Your task to perform on an android device: clear history in the chrome app Image 0: 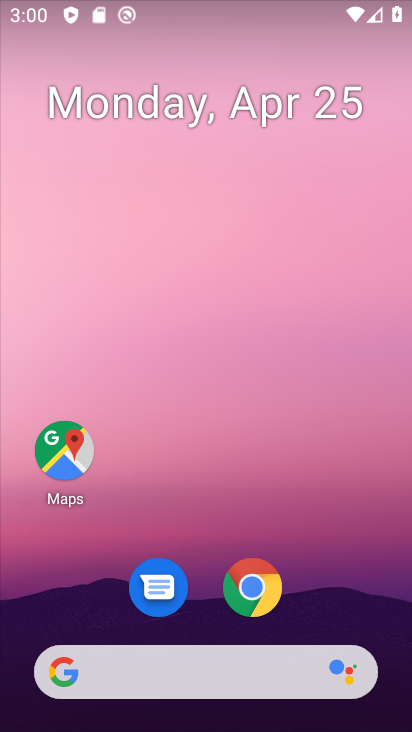
Step 0: click (253, 592)
Your task to perform on an android device: clear history in the chrome app Image 1: 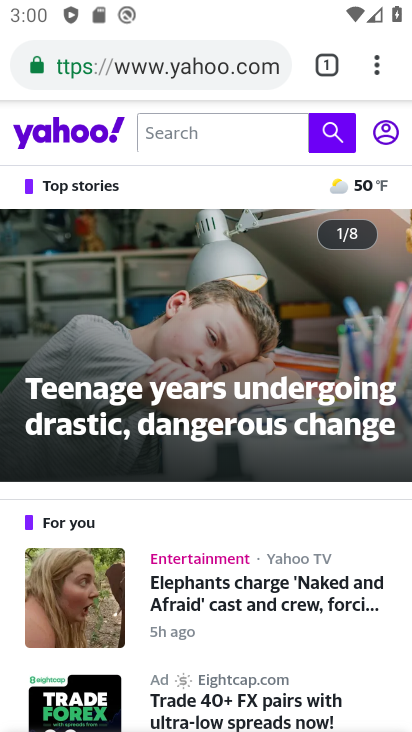
Step 1: click (385, 67)
Your task to perform on an android device: clear history in the chrome app Image 2: 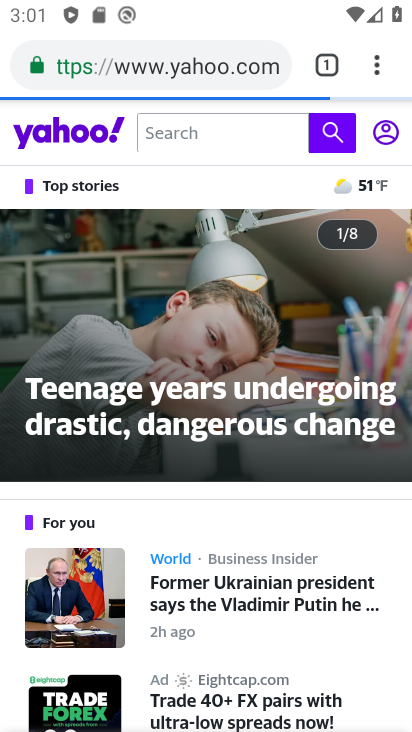
Step 2: click (375, 64)
Your task to perform on an android device: clear history in the chrome app Image 3: 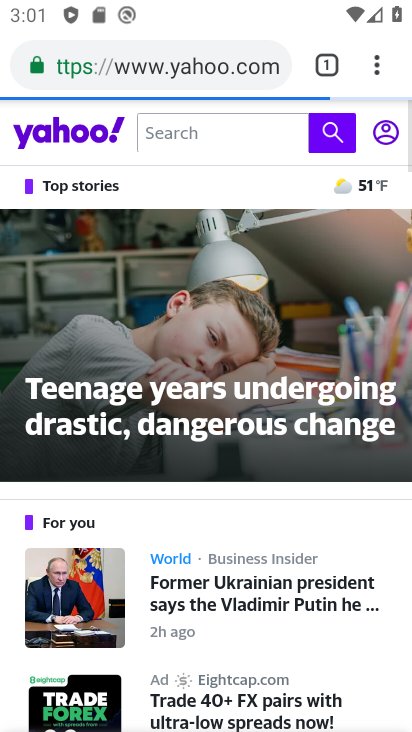
Step 3: click (381, 57)
Your task to perform on an android device: clear history in the chrome app Image 4: 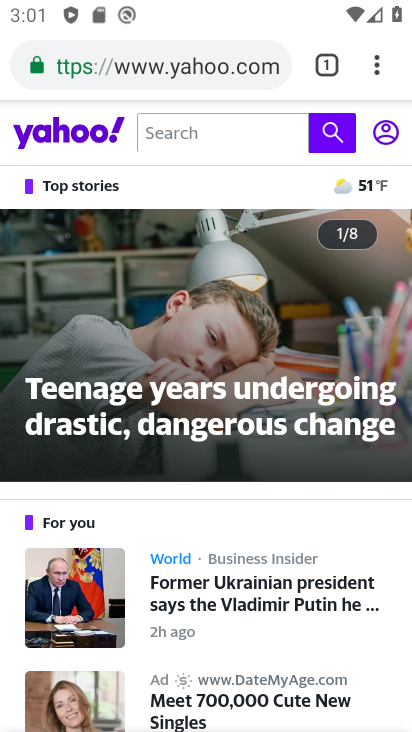
Step 4: click (374, 70)
Your task to perform on an android device: clear history in the chrome app Image 5: 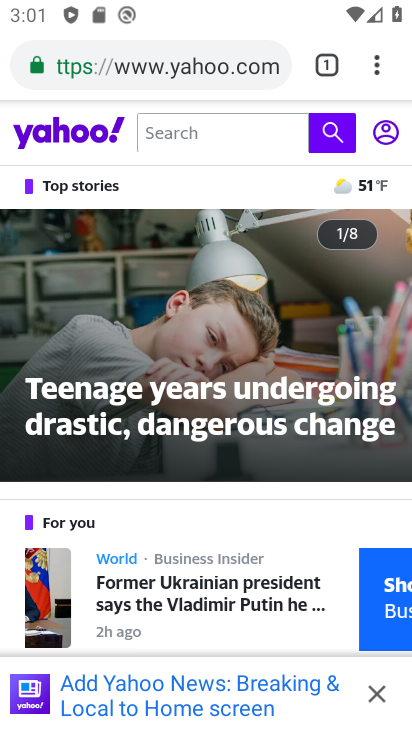
Step 5: click (374, 70)
Your task to perform on an android device: clear history in the chrome app Image 6: 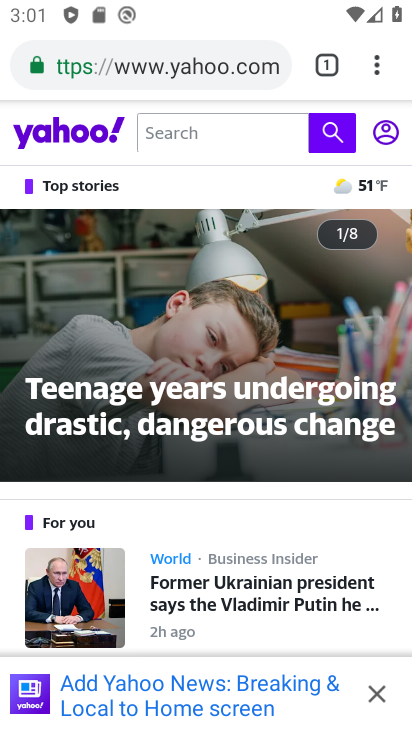
Step 6: click (374, 61)
Your task to perform on an android device: clear history in the chrome app Image 7: 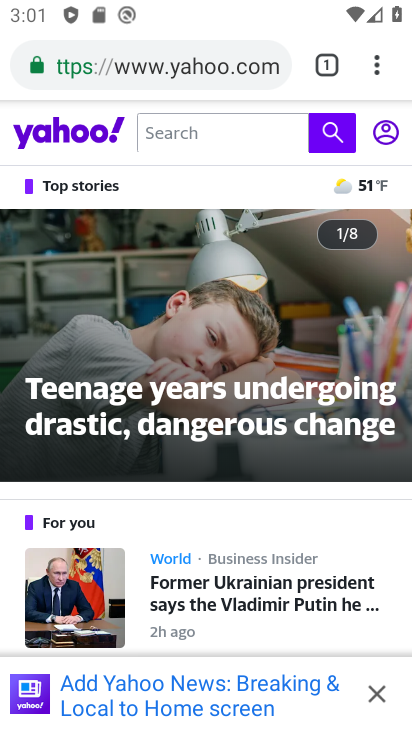
Step 7: click (374, 68)
Your task to perform on an android device: clear history in the chrome app Image 8: 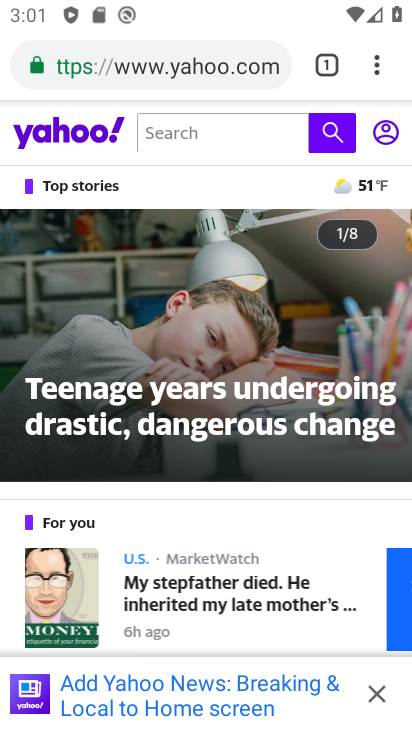
Step 8: task complete